Your task to perform on an android device: Search for "lenovo thinkpad" on target, select the first entry, add it to the cart, then select checkout. Image 0: 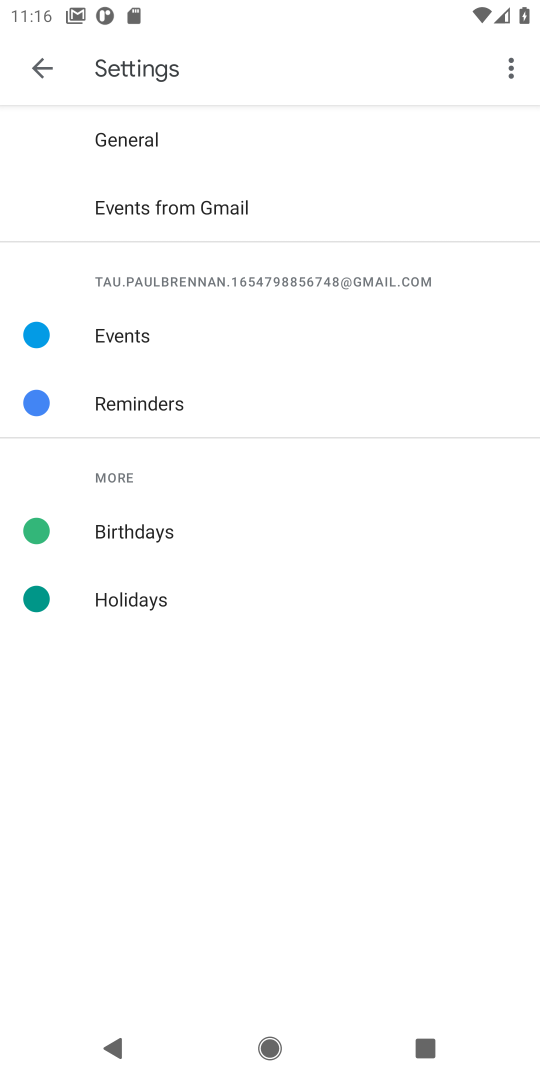
Step 0: press home button
Your task to perform on an android device: Search for "lenovo thinkpad" on target, select the first entry, add it to the cart, then select checkout. Image 1: 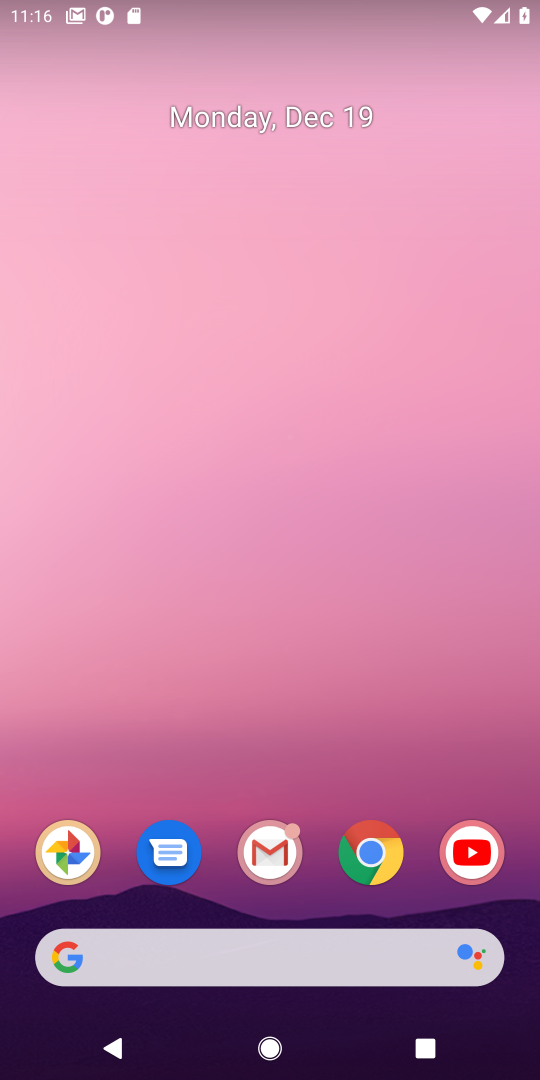
Step 1: click (378, 853)
Your task to perform on an android device: Search for "lenovo thinkpad" on target, select the first entry, add it to the cart, then select checkout. Image 2: 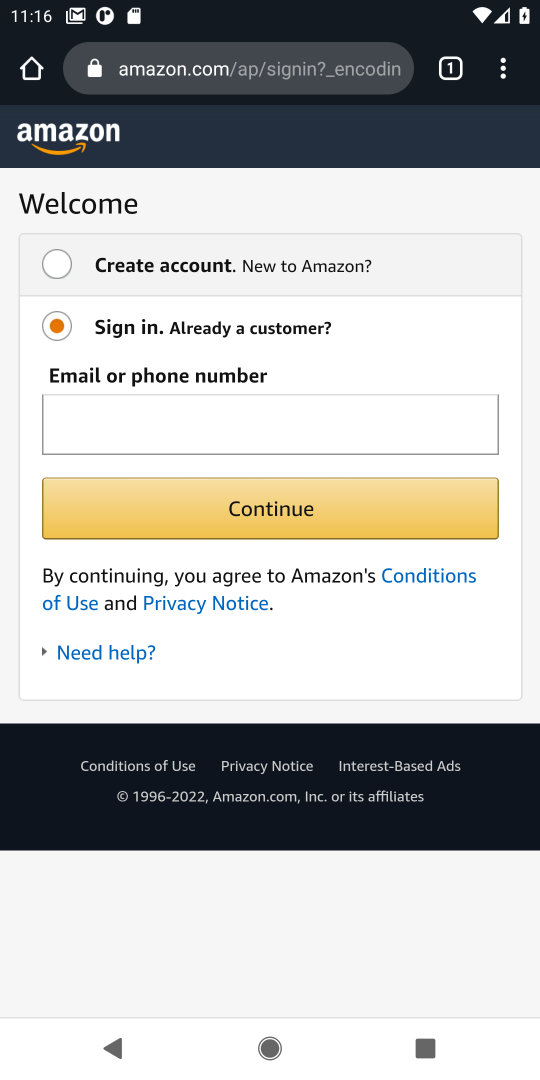
Step 2: click (194, 69)
Your task to perform on an android device: Search for "lenovo thinkpad" on target, select the first entry, add it to the cart, then select checkout. Image 3: 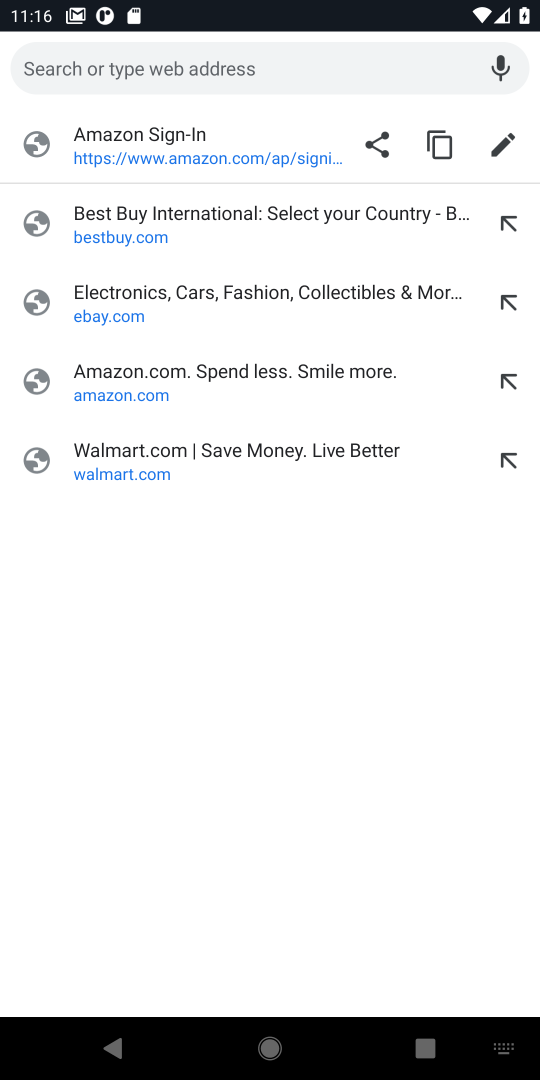
Step 3: type "target.com"
Your task to perform on an android device: Search for "lenovo thinkpad" on target, select the first entry, add it to the cart, then select checkout. Image 4: 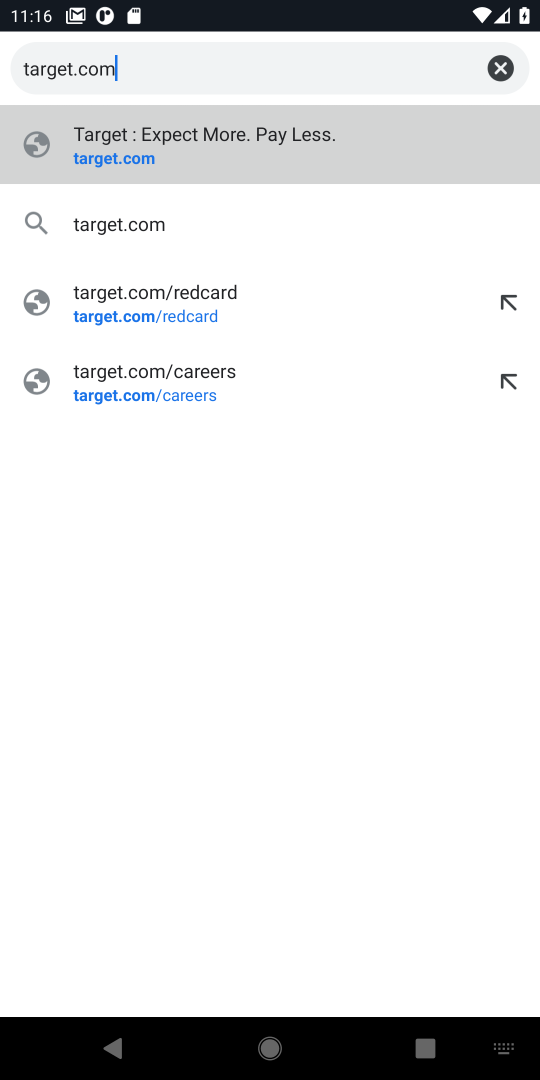
Step 4: click (117, 172)
Your task to perform on an android device: Search for "lenovo thinkpad" on target, select the first entry, add it to the cart, then select checkout. Image 5: 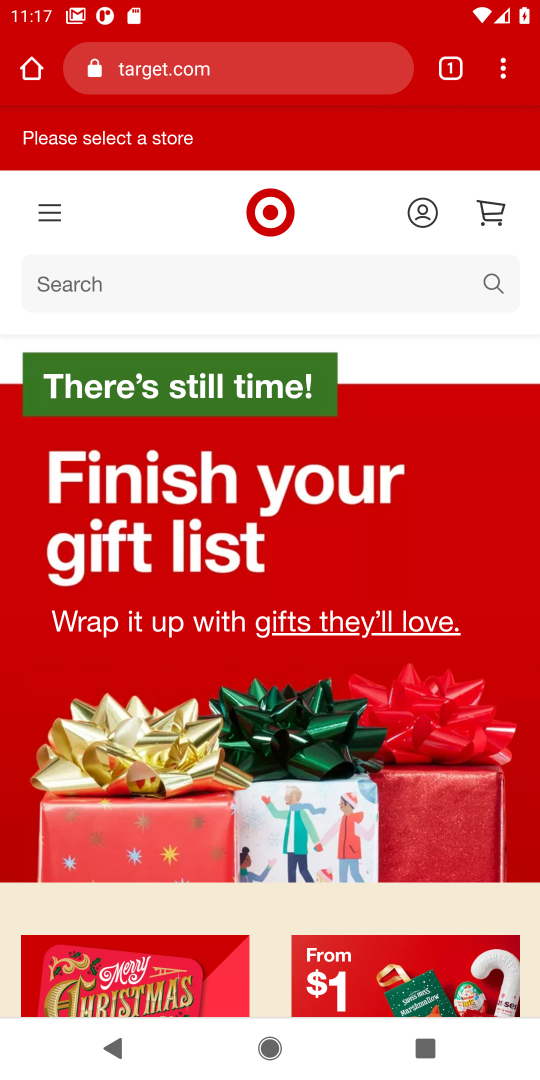
Step 5: click (59, 291)
Your task to perform on an android device: Search for "lenovo thinkpad" on target, select the first entry, add it to the cart, then select checkout. Image 6: 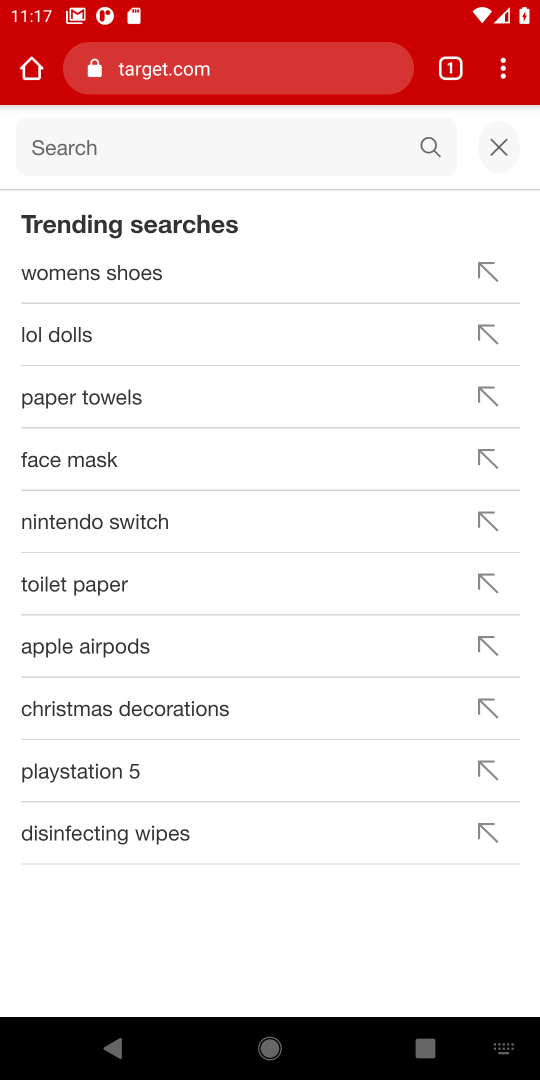
Step 6: type "lenovo thinkpad"
Your task to perform on an android device: Search for "lenovo thinkpad" on target, select the first entry, add it to the cart, then select checkout. Image 7: 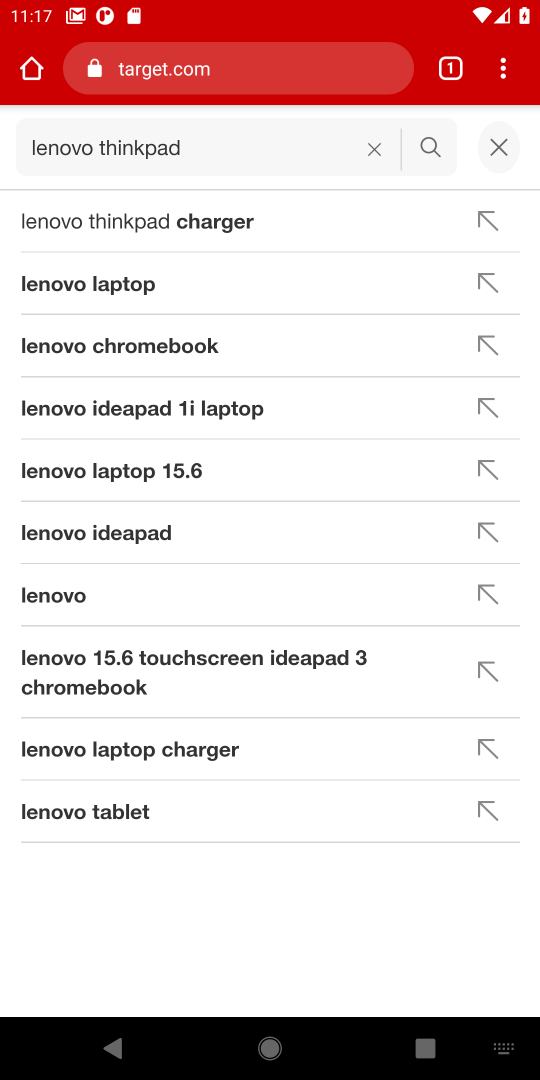
Step 7: click (420, 153)
Your task to perform on an android device: Search for "lenovo thinkpad" on target, select the first entry, add it to the cart, then select checkout. Image 8: 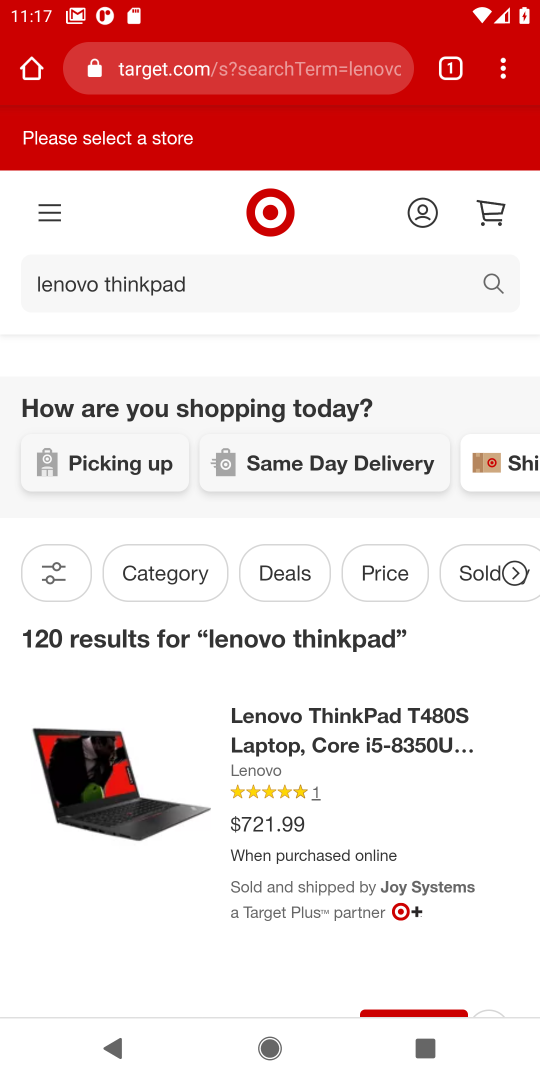
Step 8: drag from (353, 764) to (335, 561)
Your task to perform on an android device: Search for "lenovo thinkpad" on target, select the first entry, add it to the cart, then select checkout. Image 9: 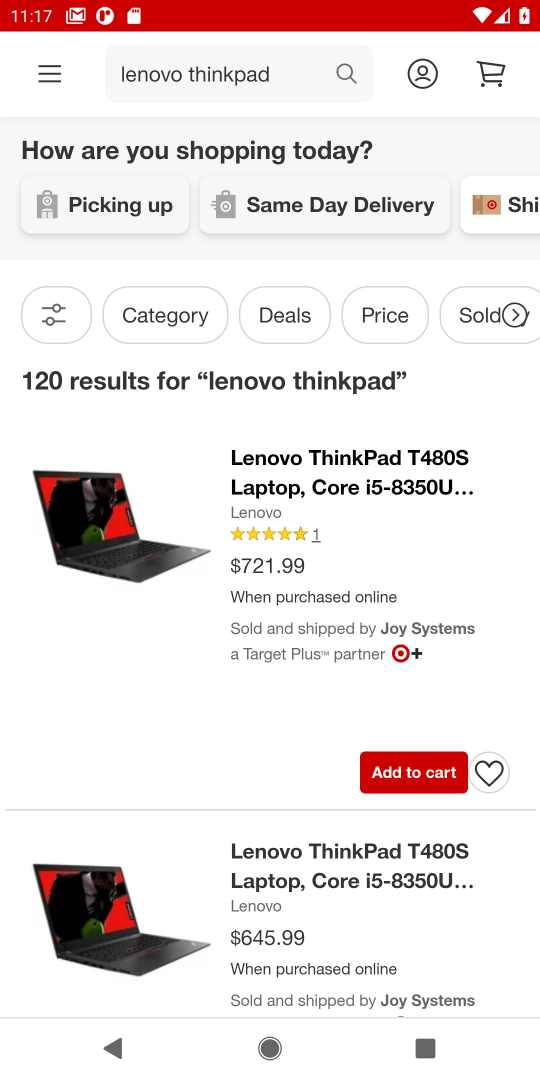
Step 9: click (387, 782)
Your task to perform on an android device: Search for "lenovo thinkpad" on target, select the first entry, add it to the cart, then select checkout. Image 10: 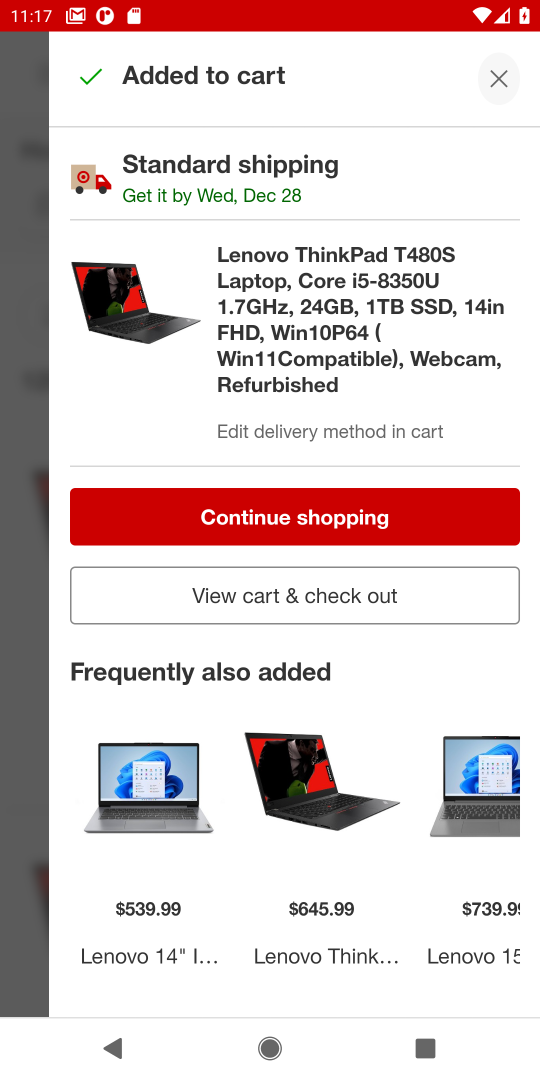
Step 10: click (260, 602)
Your task to perform on an android device: Search for "lenovo thinkpad" on target, select the first entry, add it to the cart, then select checkout. Image 11: 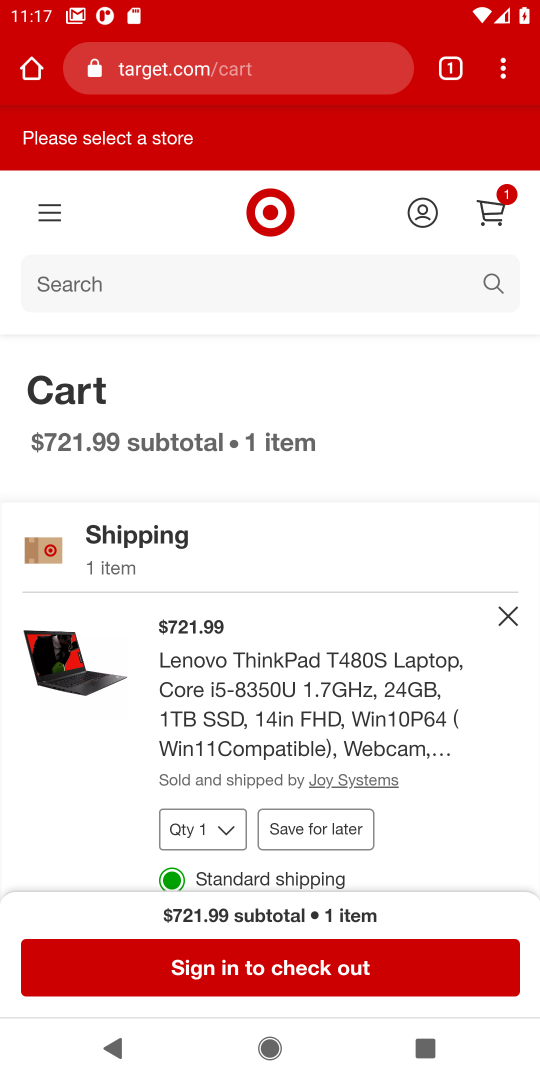
Step 11: click (255, 965)
Your task to perform on an android device: Search for "lenovo thinkpad" on target, select the first entry, add it to the cart, then select checkout. Image 12: 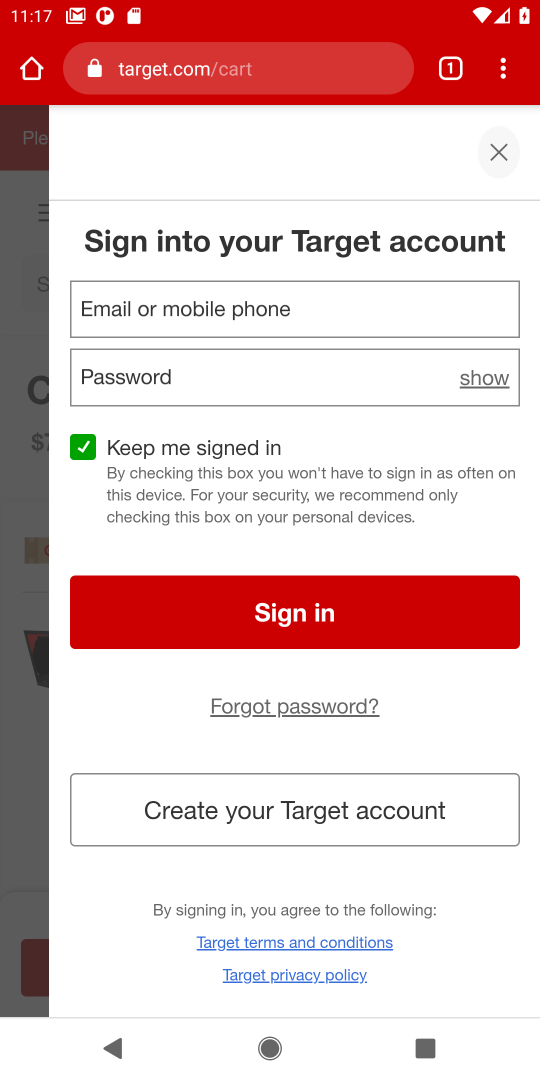
Step 12: task complete